Your task to perform on an android device: manage bookmarks in the chrome app Image 0: 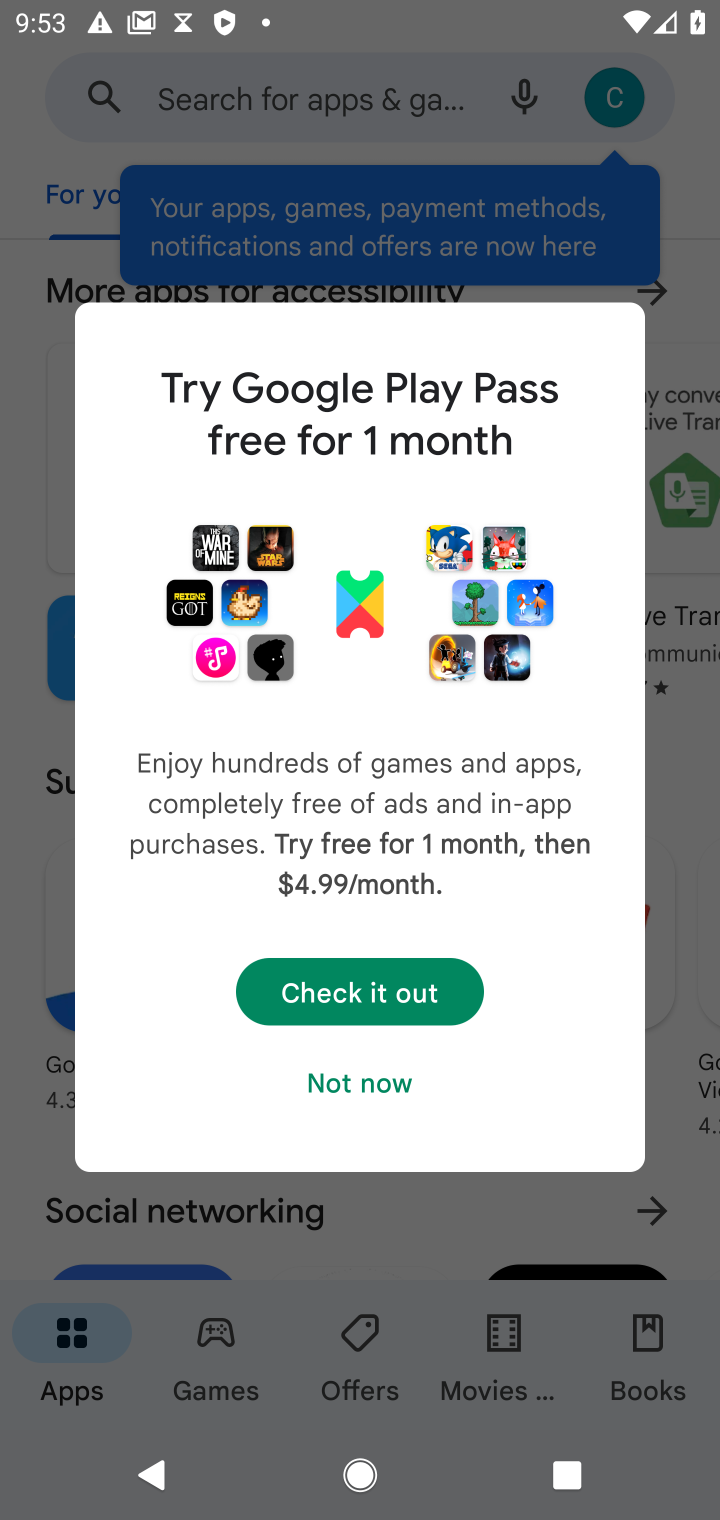
Step 0: press home button
Your task to perform on an android device: manage bookmarks in the chrome app Image 1: 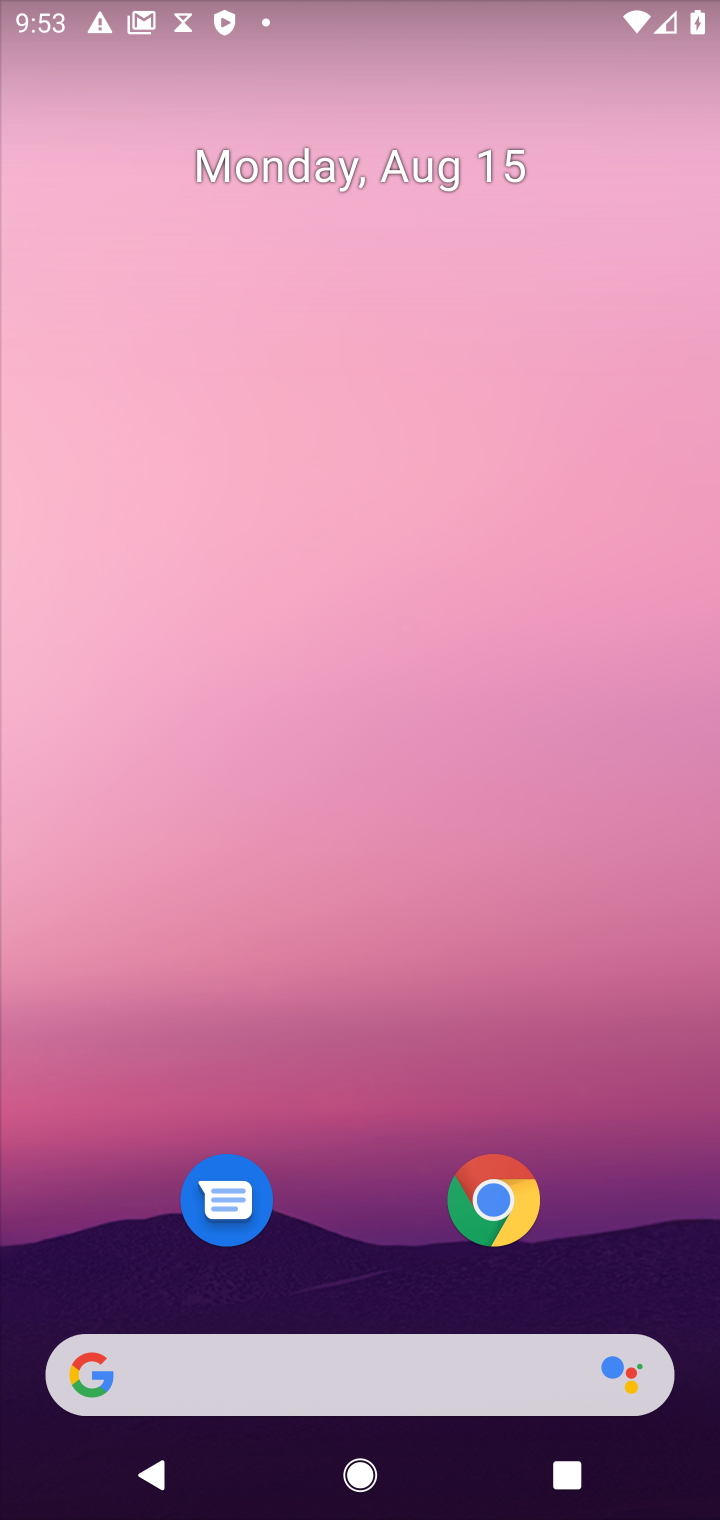
Step 1: click (504, 1241)
Your task to perform on an android device: manage bookmarks in the chrome app Image 2: 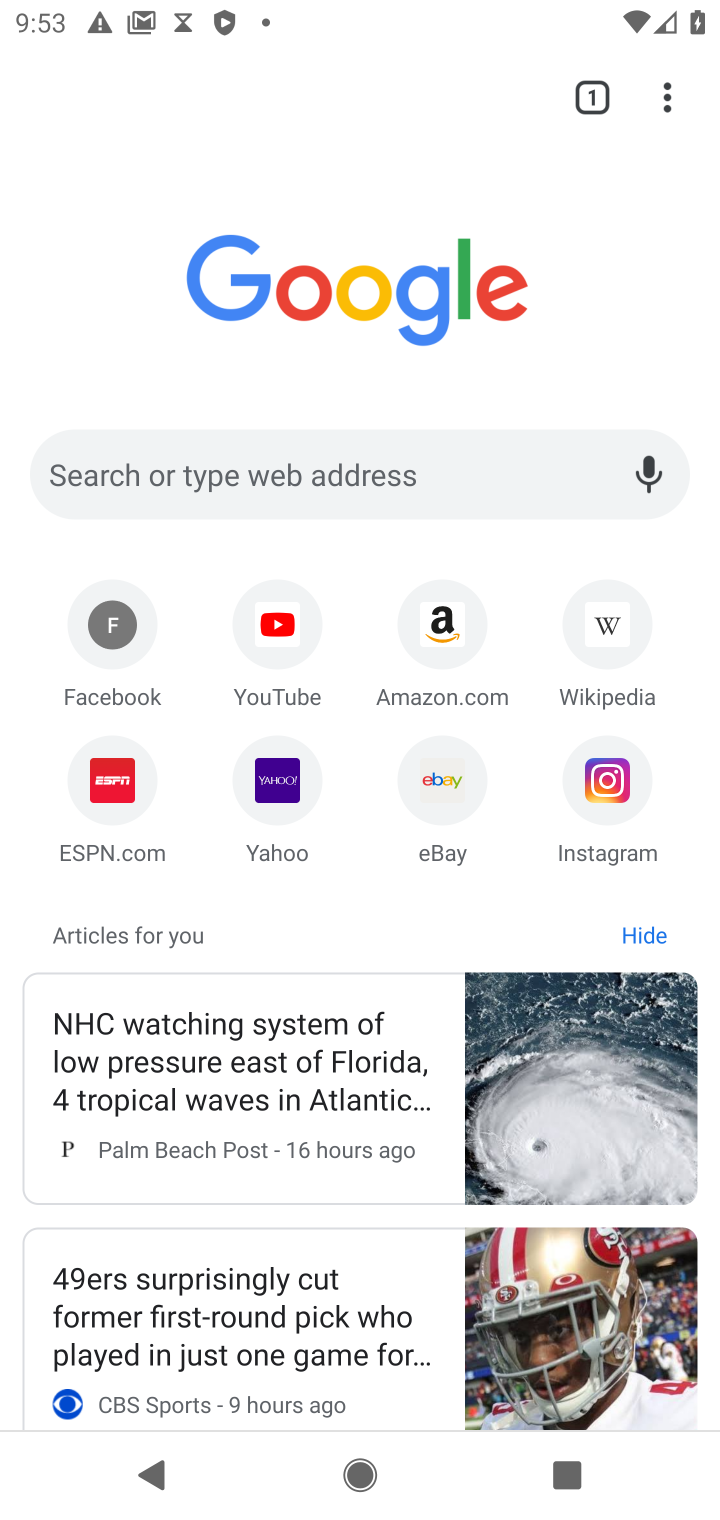
Step 2: click (649, 91)
Your task to perform on an android device: manage bookmarks in the chrome app Image 3: 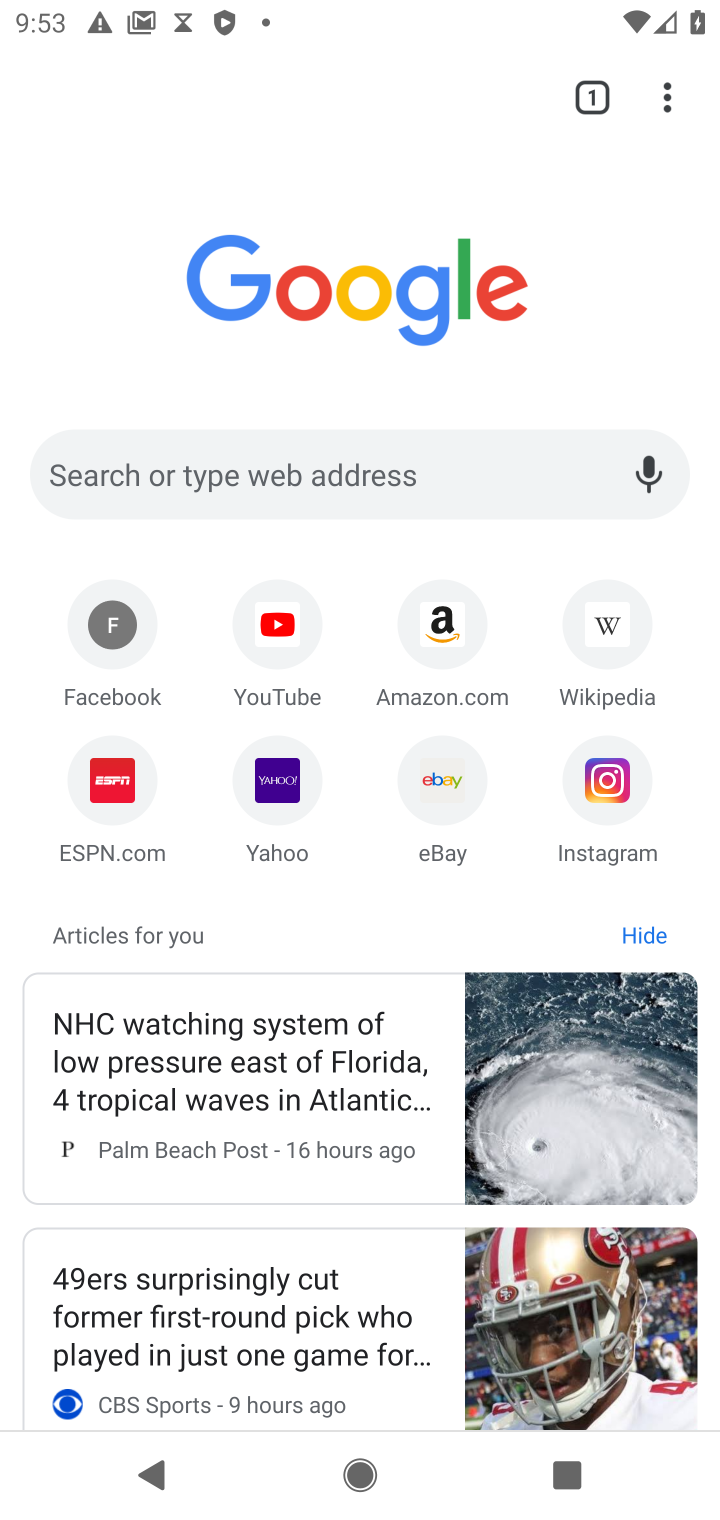
Step 3: click (667, 93)
Your task to perform on an android device: manage bookmarks in the chrome app Image 4: 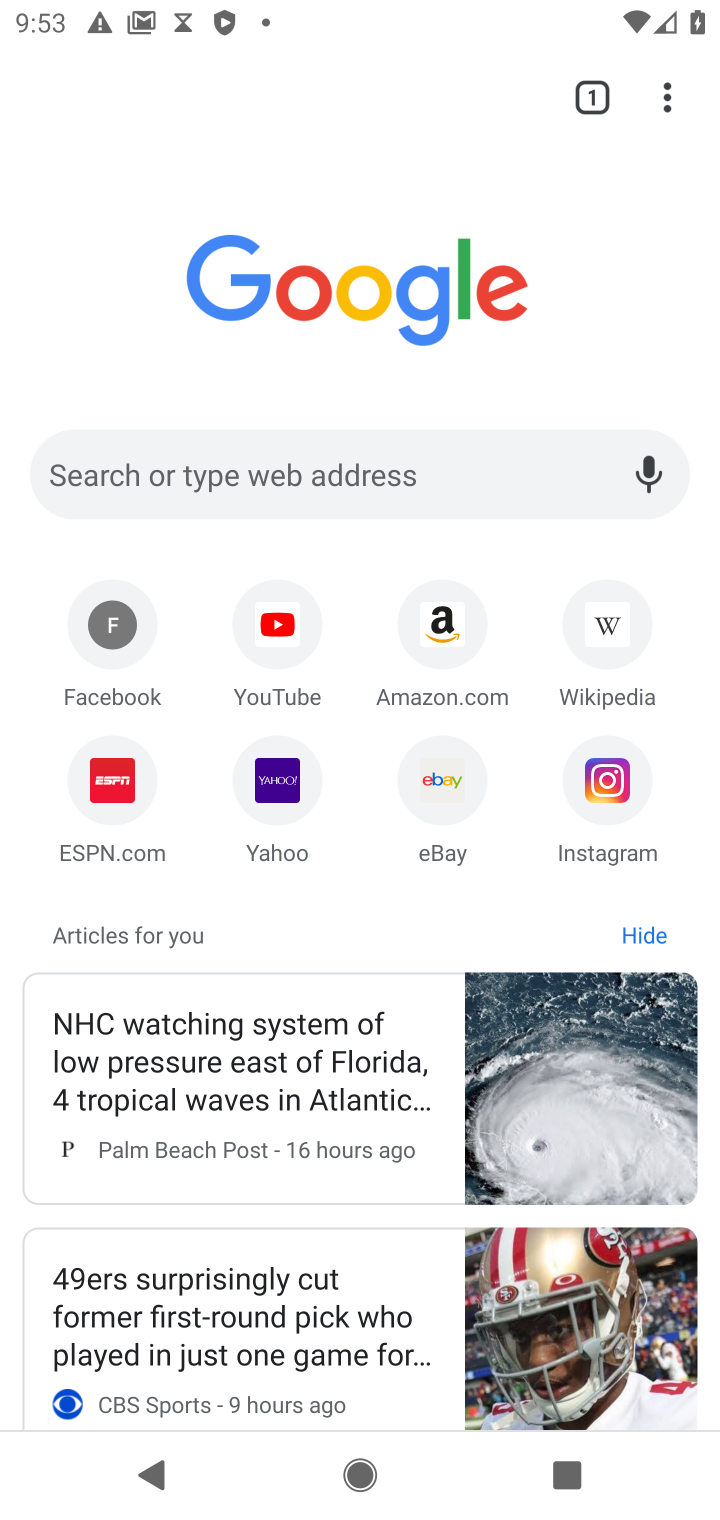
Step 4: click (667, 93)
Your task to perform on an android device: manage bookmarks in the chrome app Image 5: 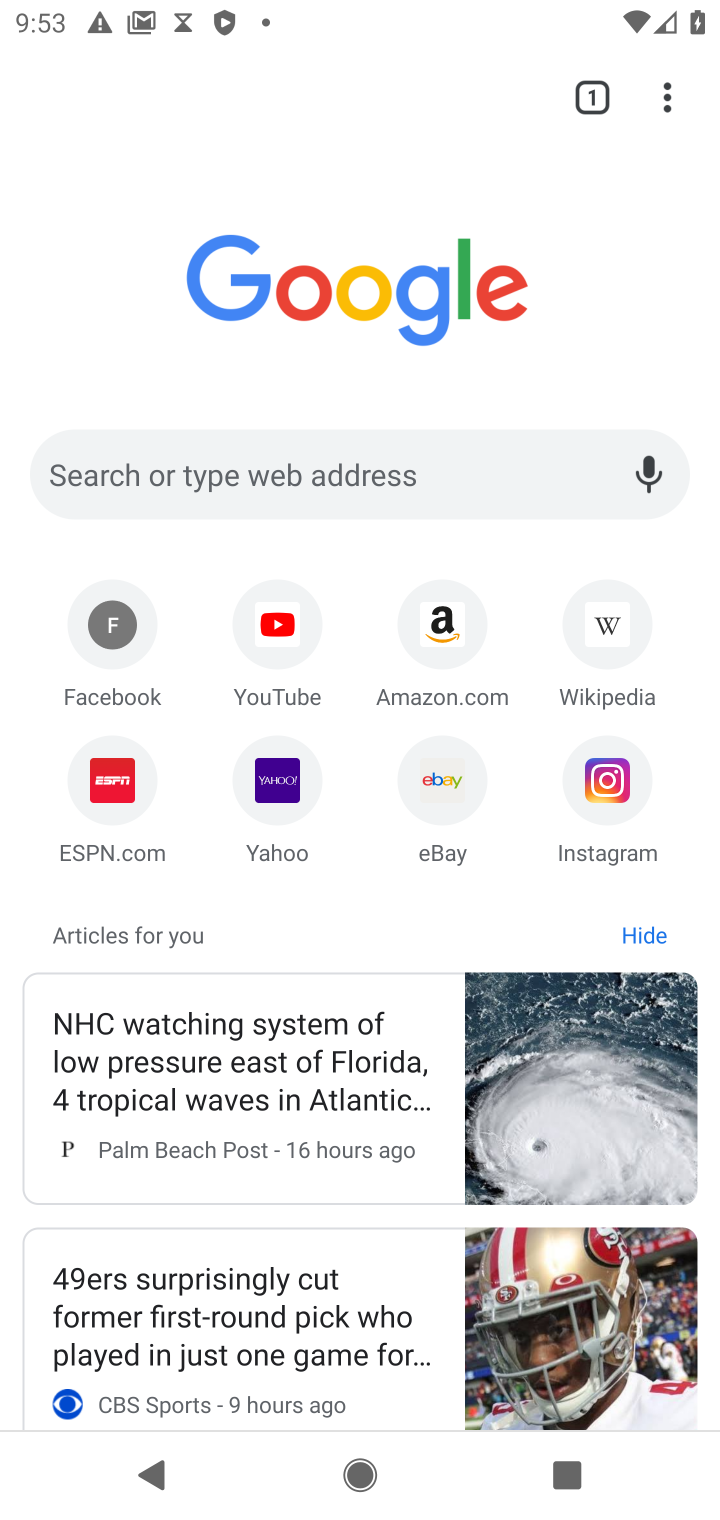
Step 5: click (667, 93)
Your task to perform on an android device: manage bookmarks in the chrome app Image 6: 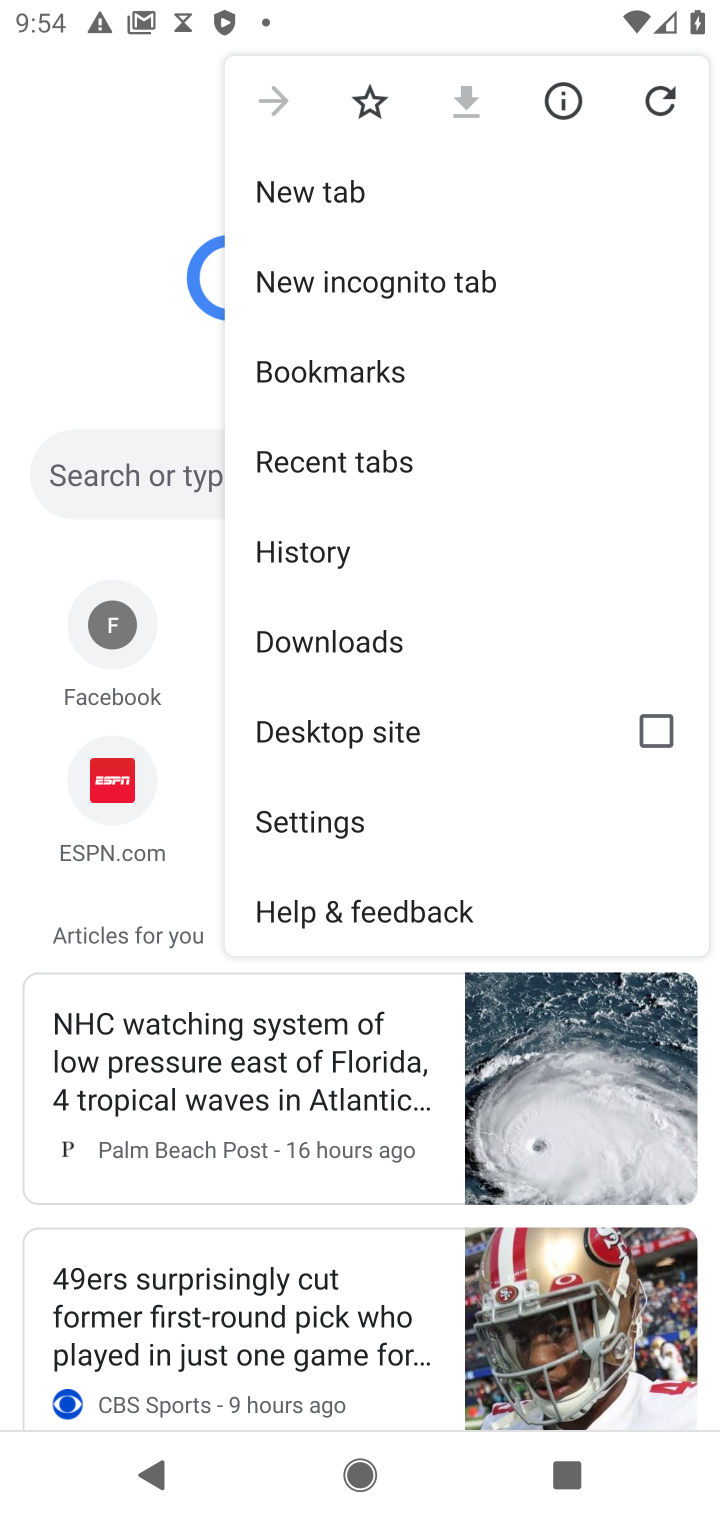
Step 6: click (381, 381)
Your task to perform on an android device: manage bookmarks in the chrome app Image 7: 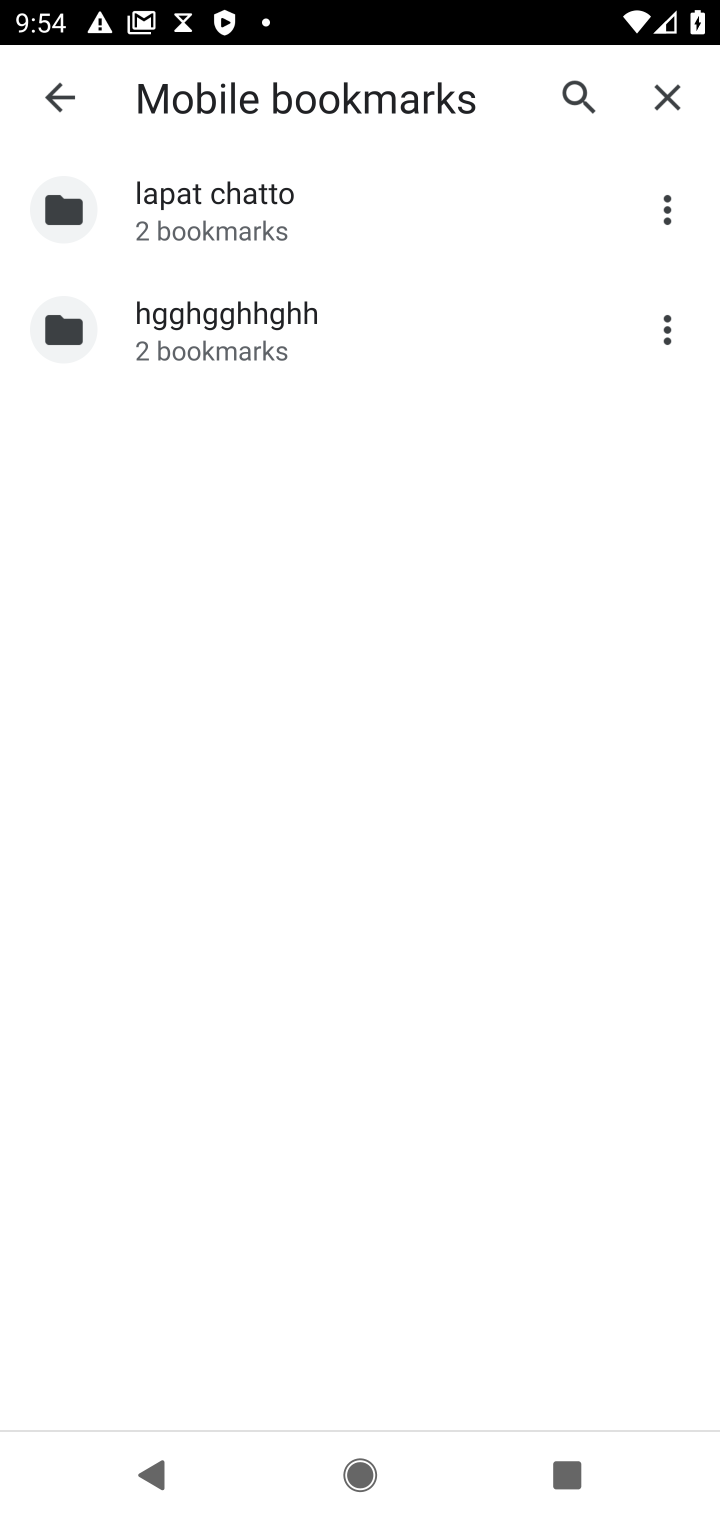
Step 7: task complete